Your task to perform on an android device: add a label to a message in the gmail app Image 0: 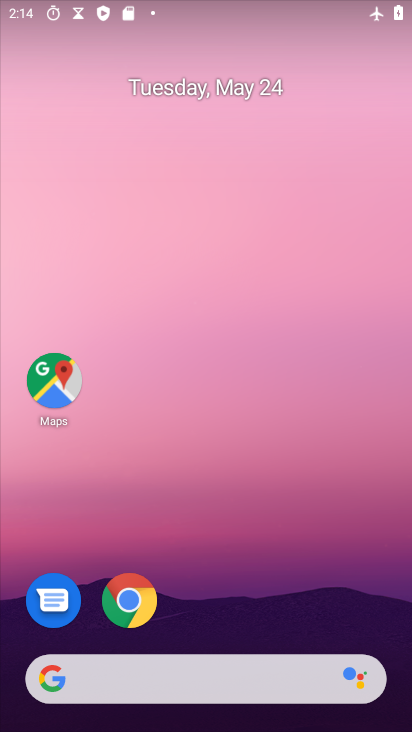
Step 0: drag from (297, 616) to (194, 61)
Your task to perform on an android device: add a label to a message in the gmail app Image 1: 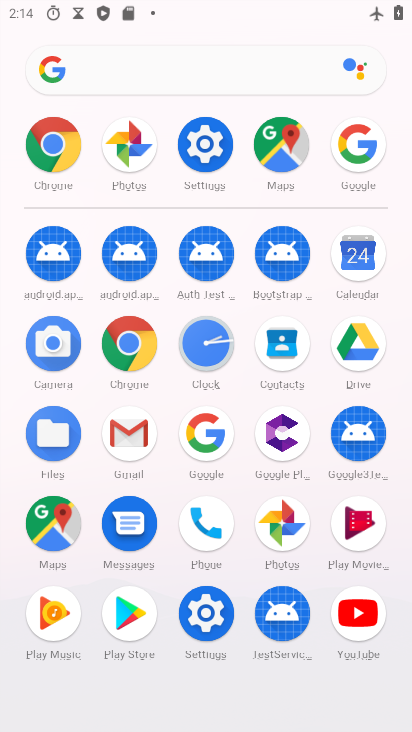
Step 1: click (125, 438)
Your task to perform on an android device: add a label to a message in the gmail app Image 2: 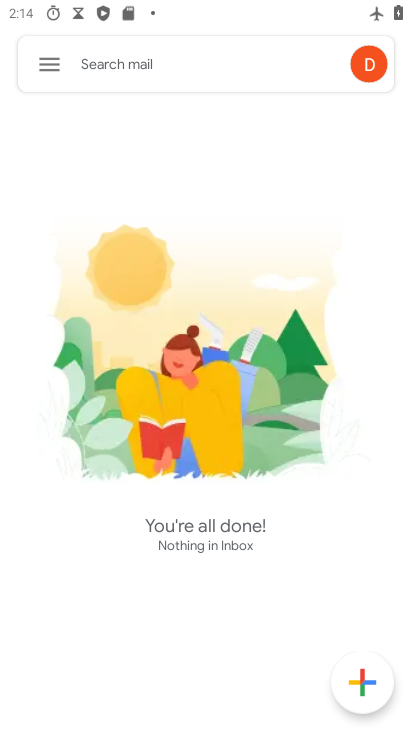
Step 2: click (50, 65)
Your task to perform on an android device: add a label to a message in the gmail app Image 3: 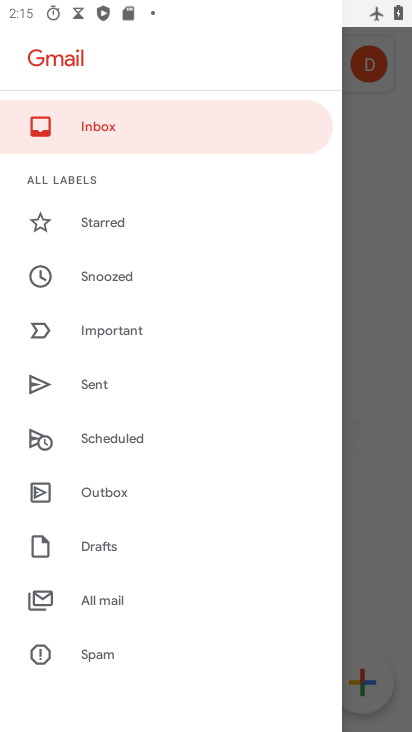
Step 3: click (153, 124)
Your task to perform on an android device: add a label to a message in the gmail app Image 4: 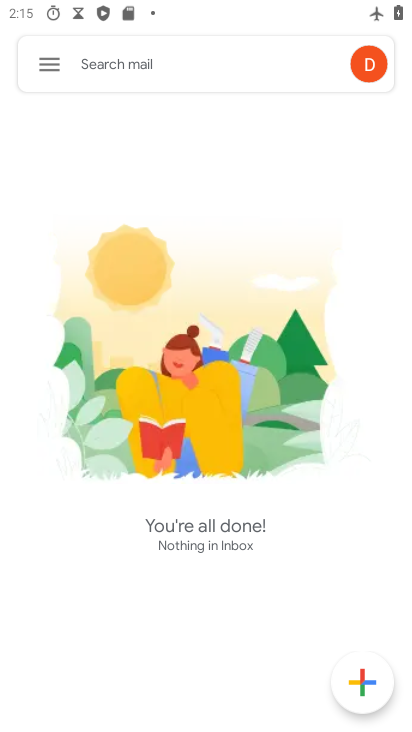
Step 4: task complete